Your task to perform on an android device: turn on wifi Image 0: 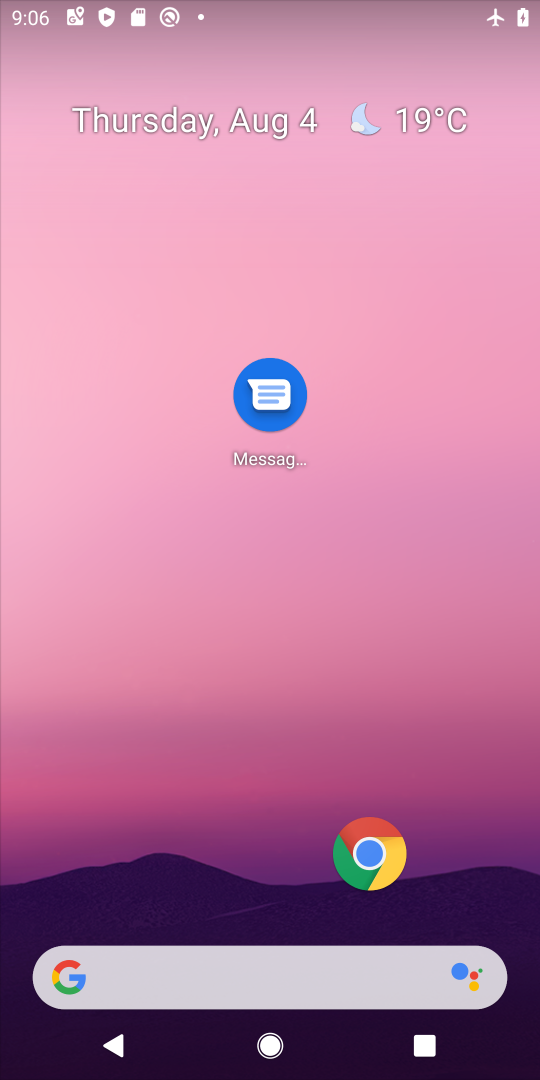
Step 0: drag from (274, 922) to (315, 189)
Your task to perform on an android device: turn on wifi Image 1: 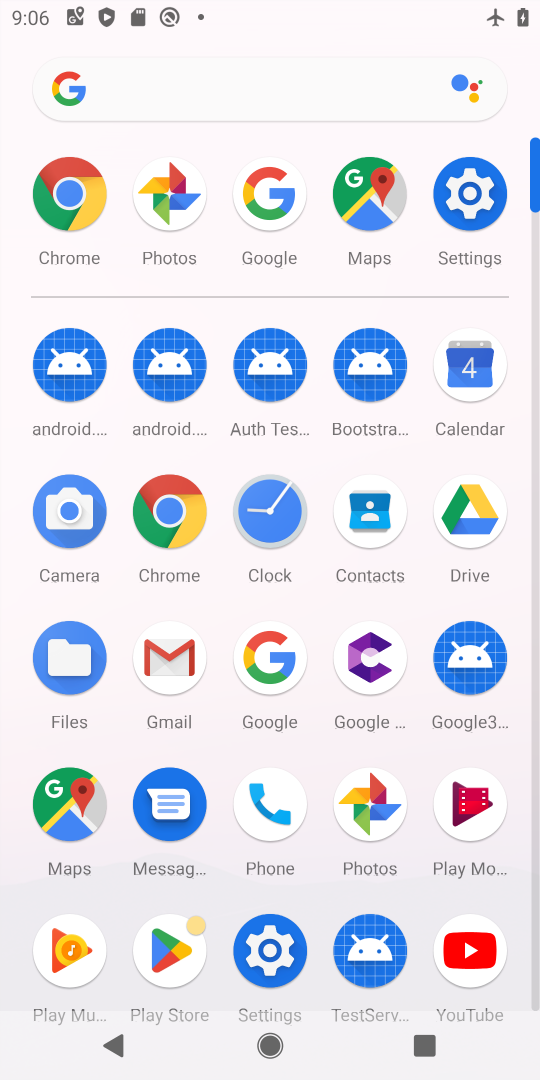
Step 1: click (480, 190)
Your task to perform on an android device: turn on wifi Image 2: 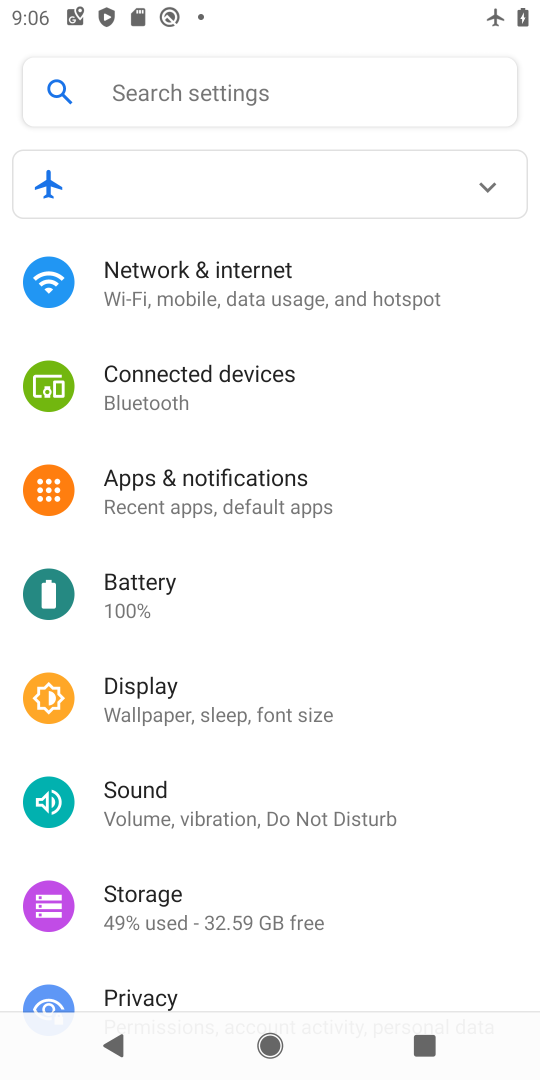
Step 2: click (246, 285)
Your task to perform on an android device: turn on wifi Image 3: 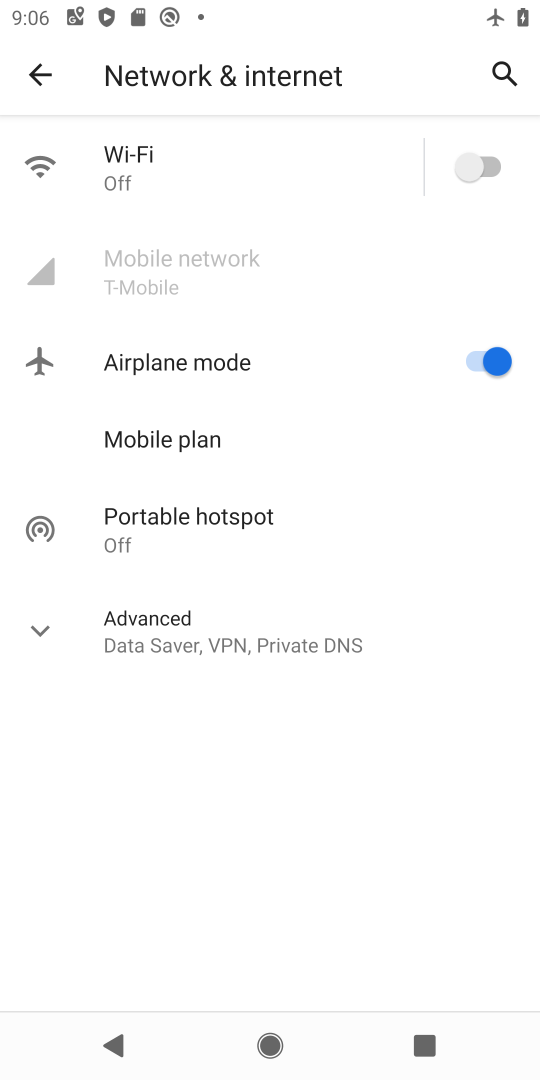
Step 3: click (485, 359)
Your task to perform on an android device: turn on wifi Image 4: 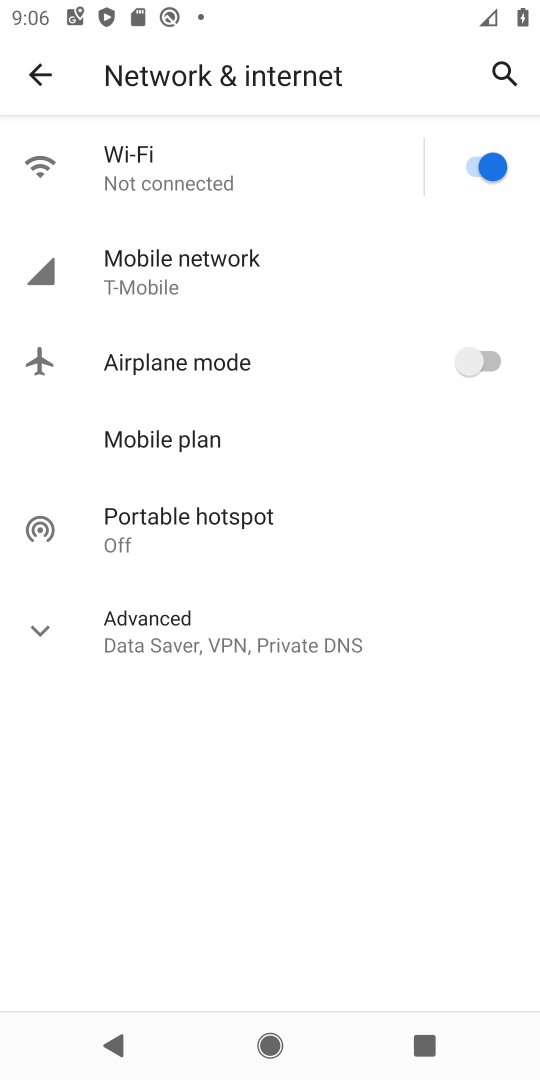
Step 4: click (491, 164)
Your task to perform on an android device: turn on wifi Image 5: 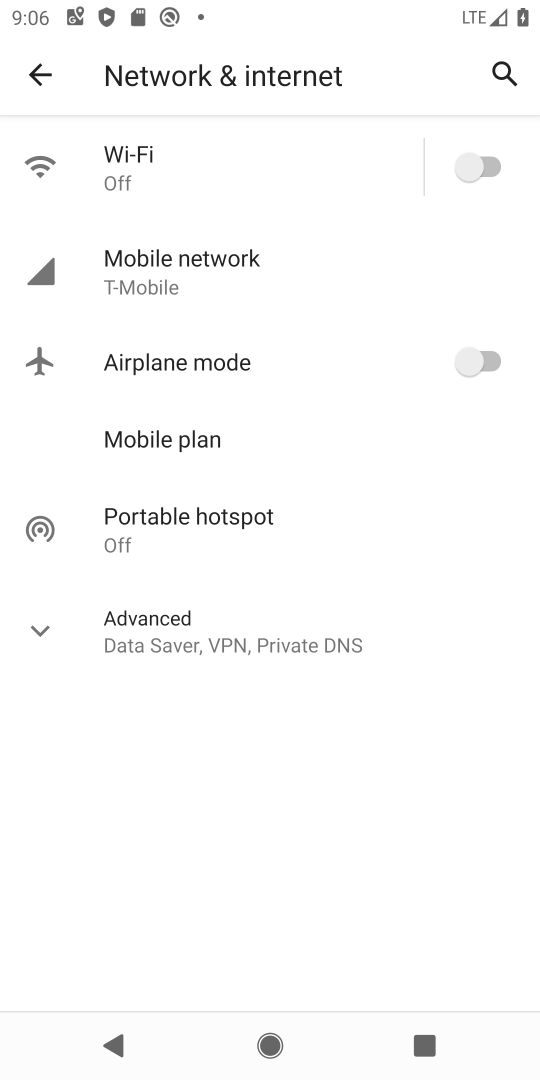
Step 5: task complete